Your task to perform on an android device: Open battery settings Image 0: 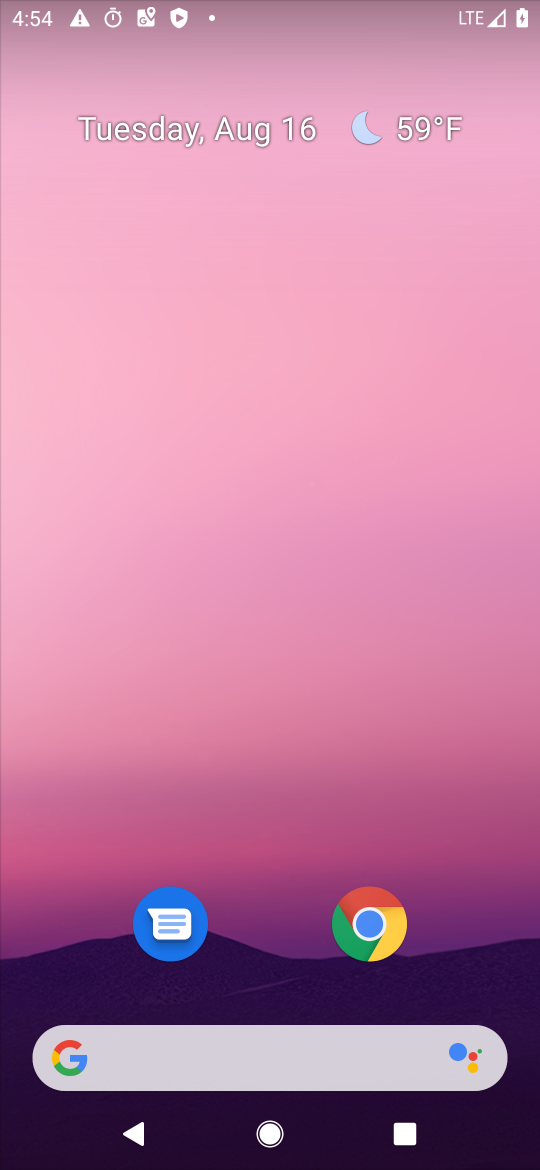
Step 0: drag from (294, 5) to (343, 917)
Your task to perform on an android device: Open battery settings Image 1: 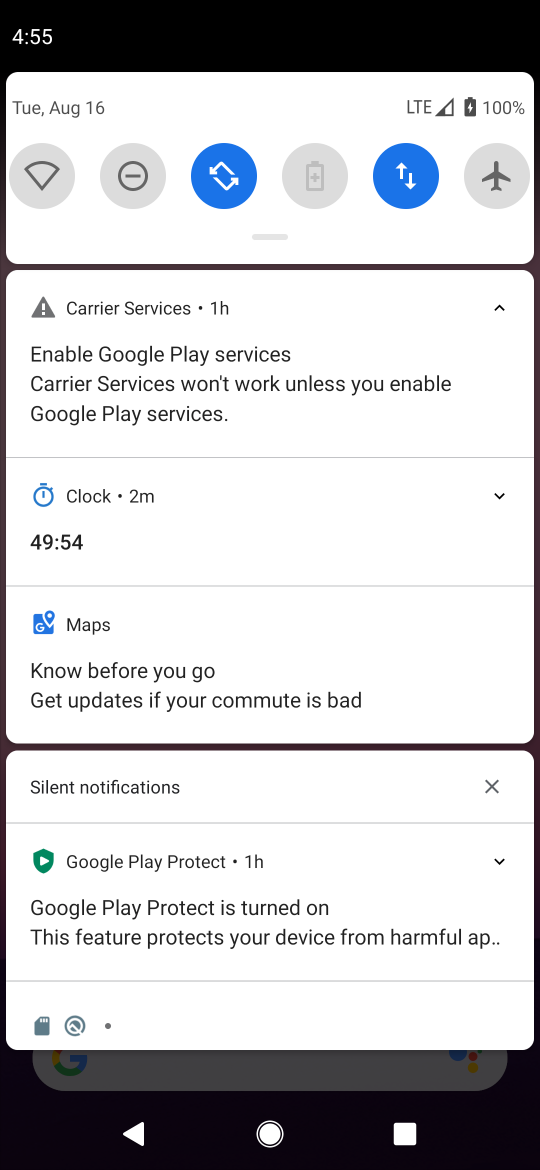
Step 1: click (302, 161)
Your task to perform on an android device: Open battery settings Image 2: 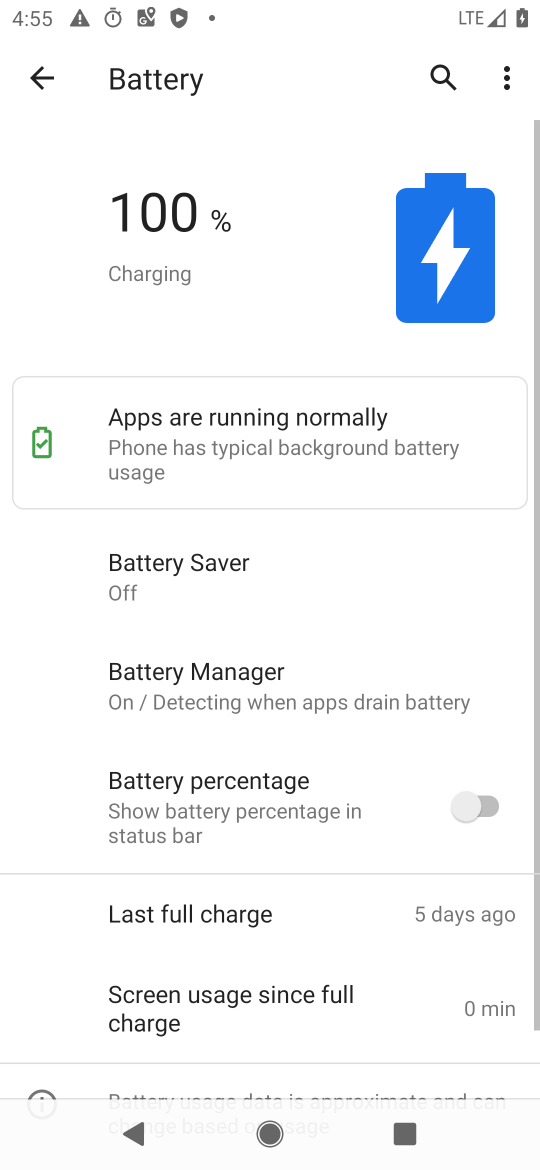
Step 2: task complete